Your task to perform on an android device: change text size in settings app Image 0: 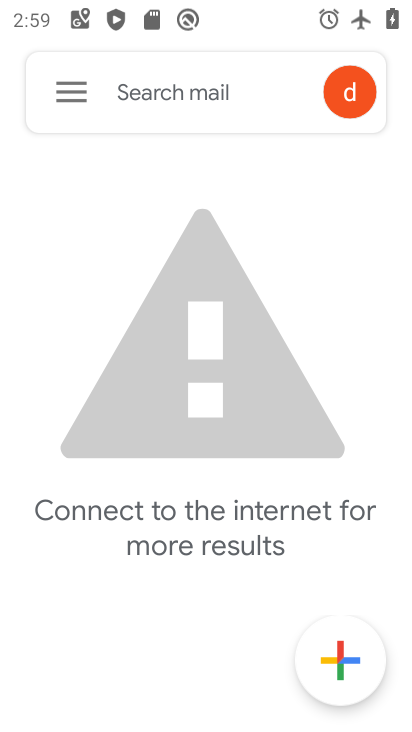
Step 0: press home button
Your task to perform on an android device: change text size in settings app Image 1: 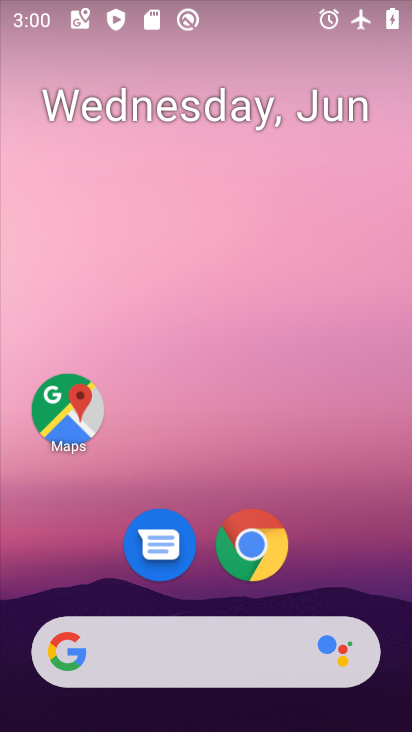
Step 1: drag from (346, 533) to (351, 173)
Your task to perform on an android device: change text size in settings app Image 2: 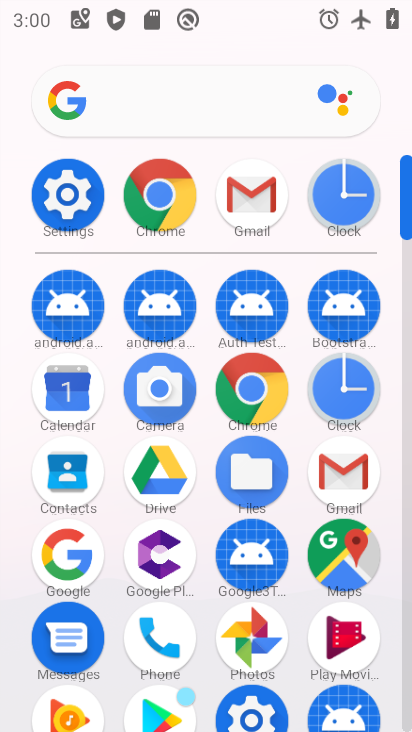
Step 2: click (66, 199)
Your task to perform on an android device: change text size in settings app Image 3: 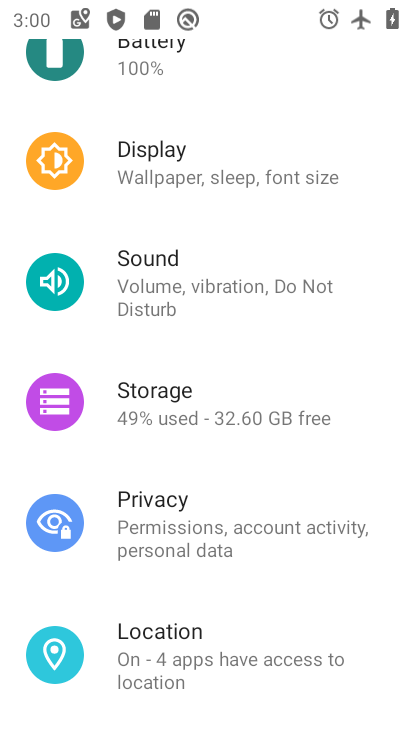
Step 3: click (210, 170)
Your task to perform on an android device: change text size in settings app Image 4: 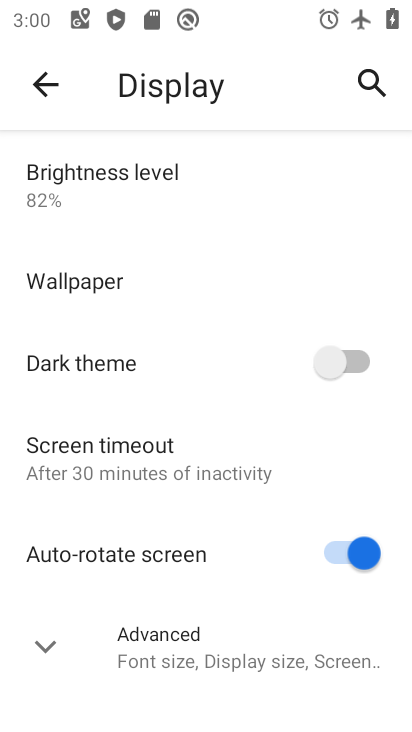
Step 4: drag from (183, 555) to (263, 163)
Your task to perform on an android device: change text size in settings app Image 5: 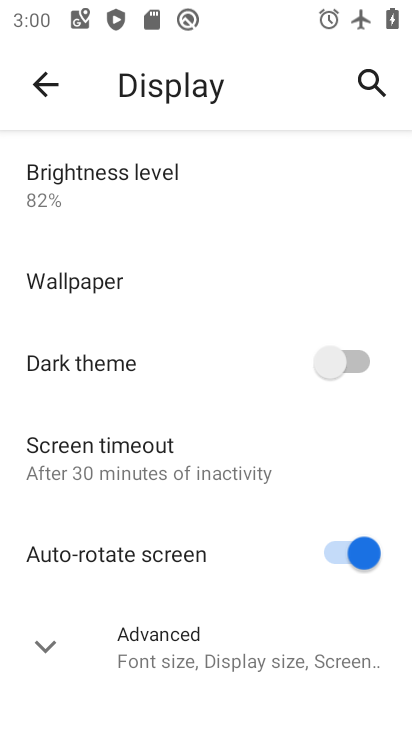
Step 5: click (175, 633)
Your task to perform on an android device: change text size in settings app Image 6: 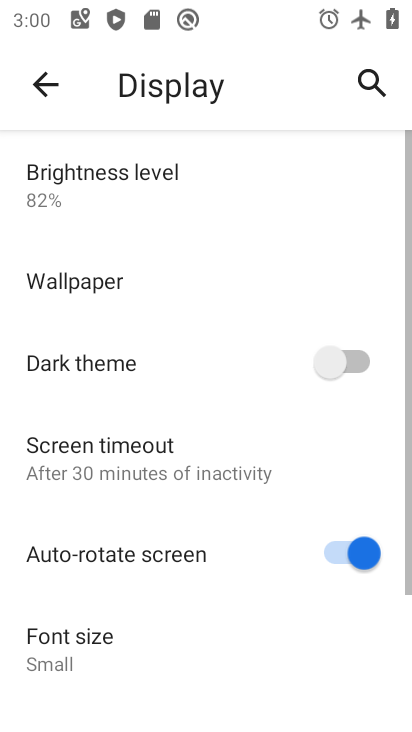
Step 6: click (97, 664)
Your task to perform on an android device: change text size in settings app Image 7: 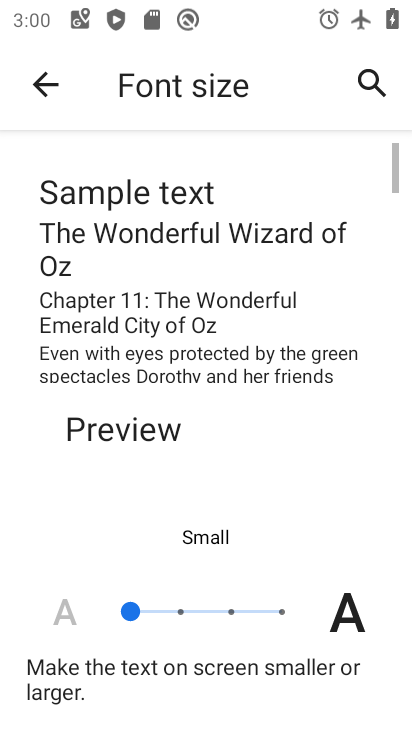
Step 7: click (156, 615)
Your task to perform on an android device: change text size in settings app Image 8: 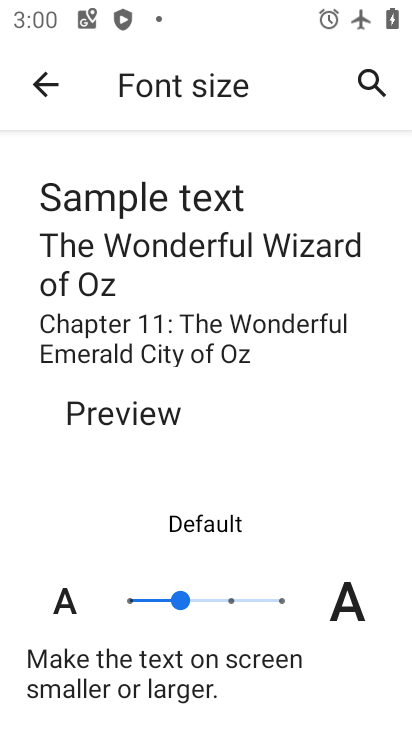
Step 8: task complete